Your task to perform on an android device: snooze an email in the gmail app Image 0: 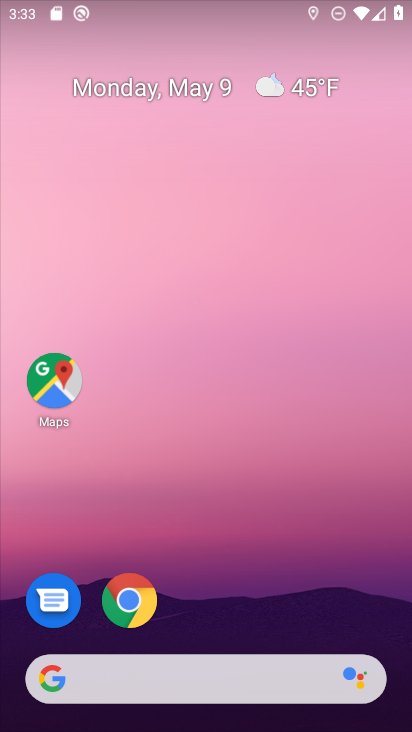
Step 0: drag from (207, 629) to (309, 88)
Your task to perform on an android device: snooze an email in the gmail app Image 1: 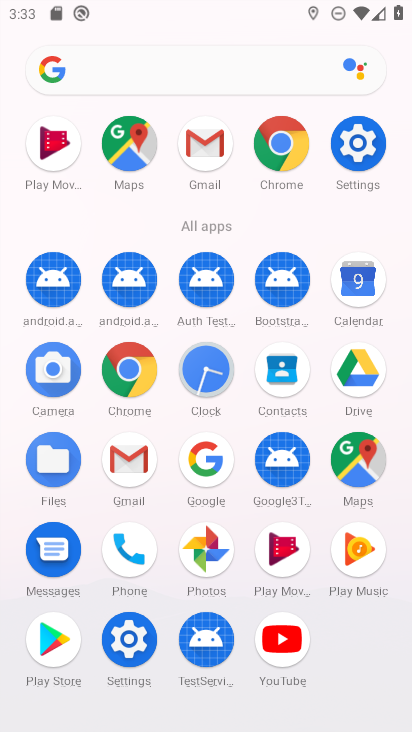
Step 1: click (127, 453)
Your task to perform on an android device: snooze an email in the gmail app Image 2: 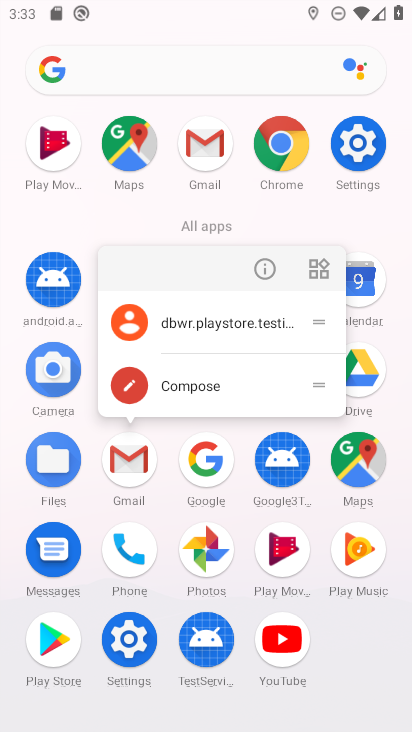
Step 2: click (127, 453)
Your task to perform on an android device: snooze an email in the gmail app Image 3: 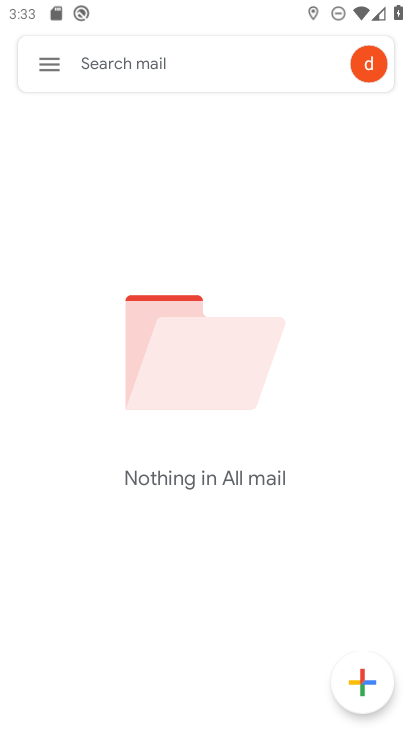
Step 3: task complete